Your task to perform on an android device: Open wifi settings Image 0: 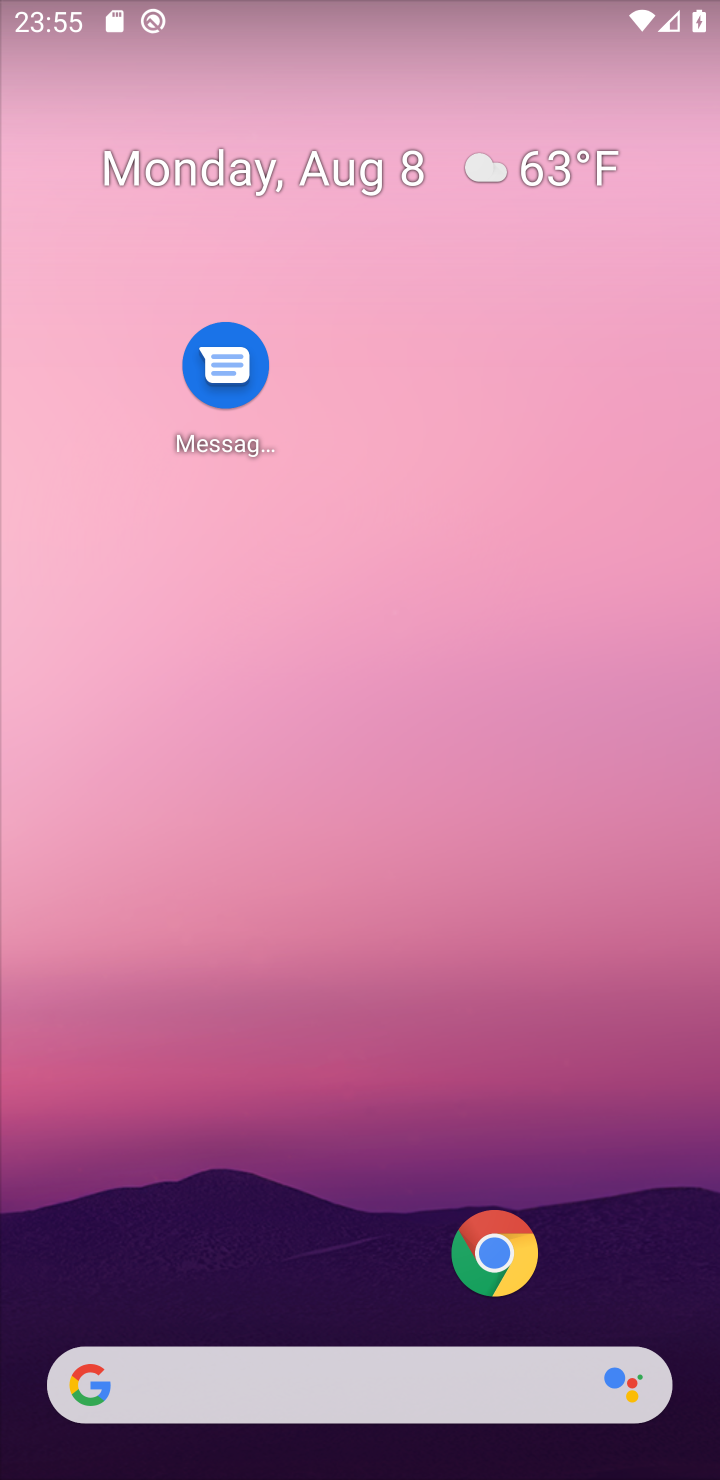
Step 0: drag from (322, 1249) to (386, 309)
Your task to perform on an android device: Open wifi settings Image 1: 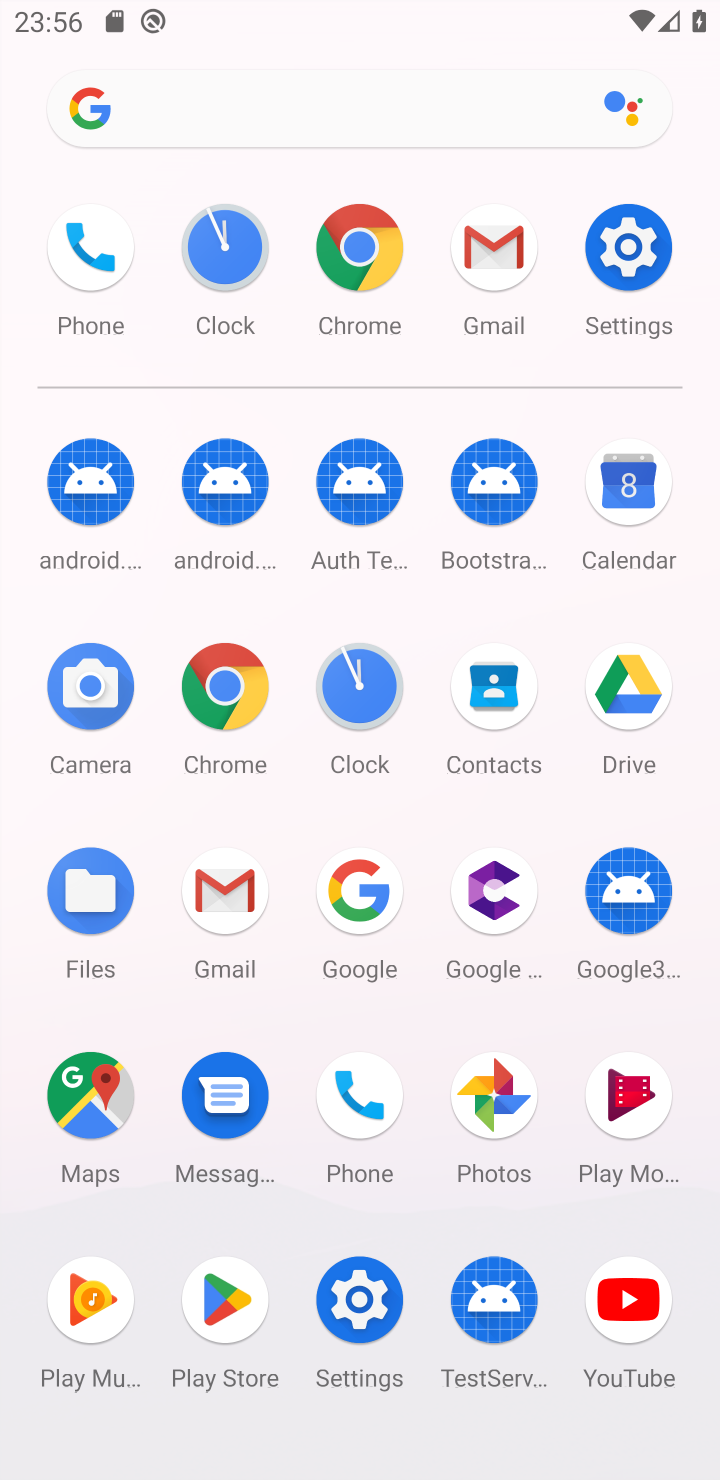
Step 1: click (632, 244)
Your task to perform on an android device: Open wifi settings Image 2: 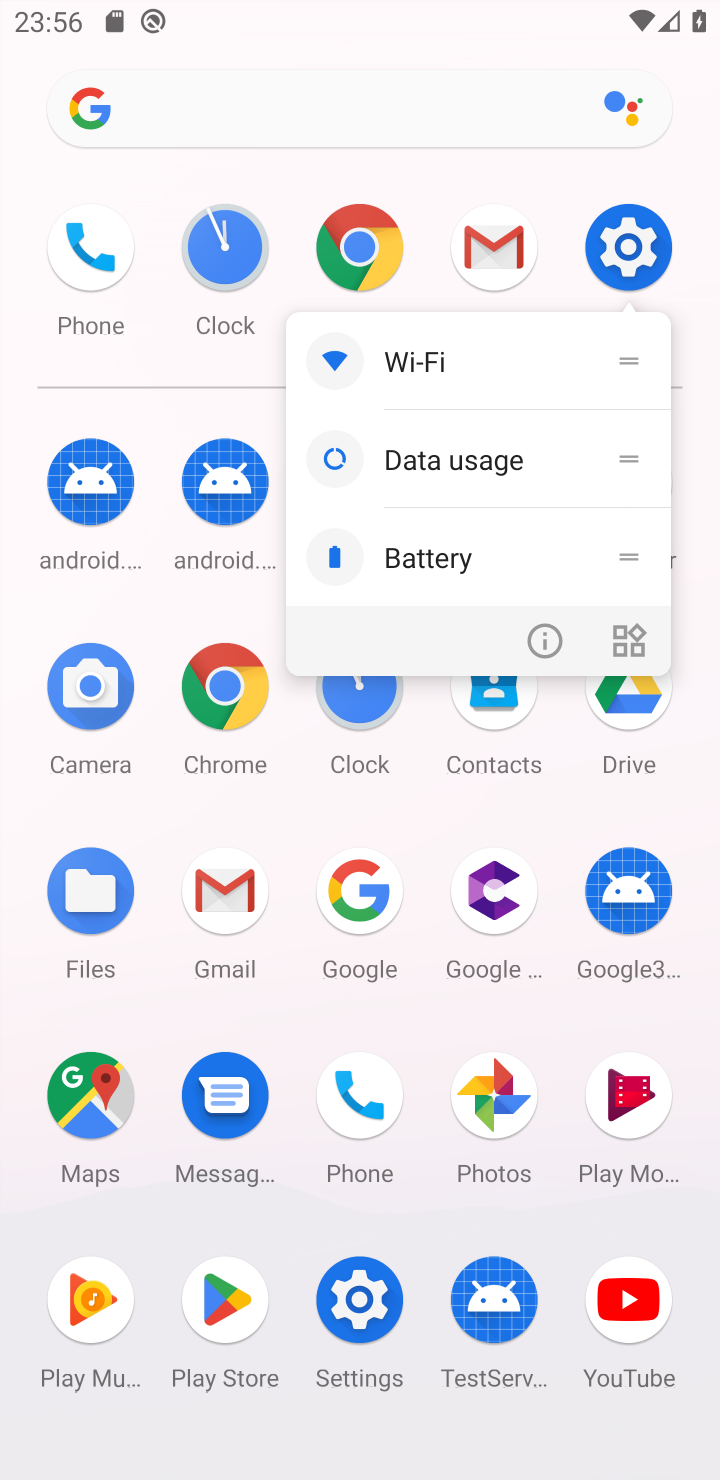
Step 2: click (651, 246)
Your task to perform on an android device: Open wifi settings Image 3: 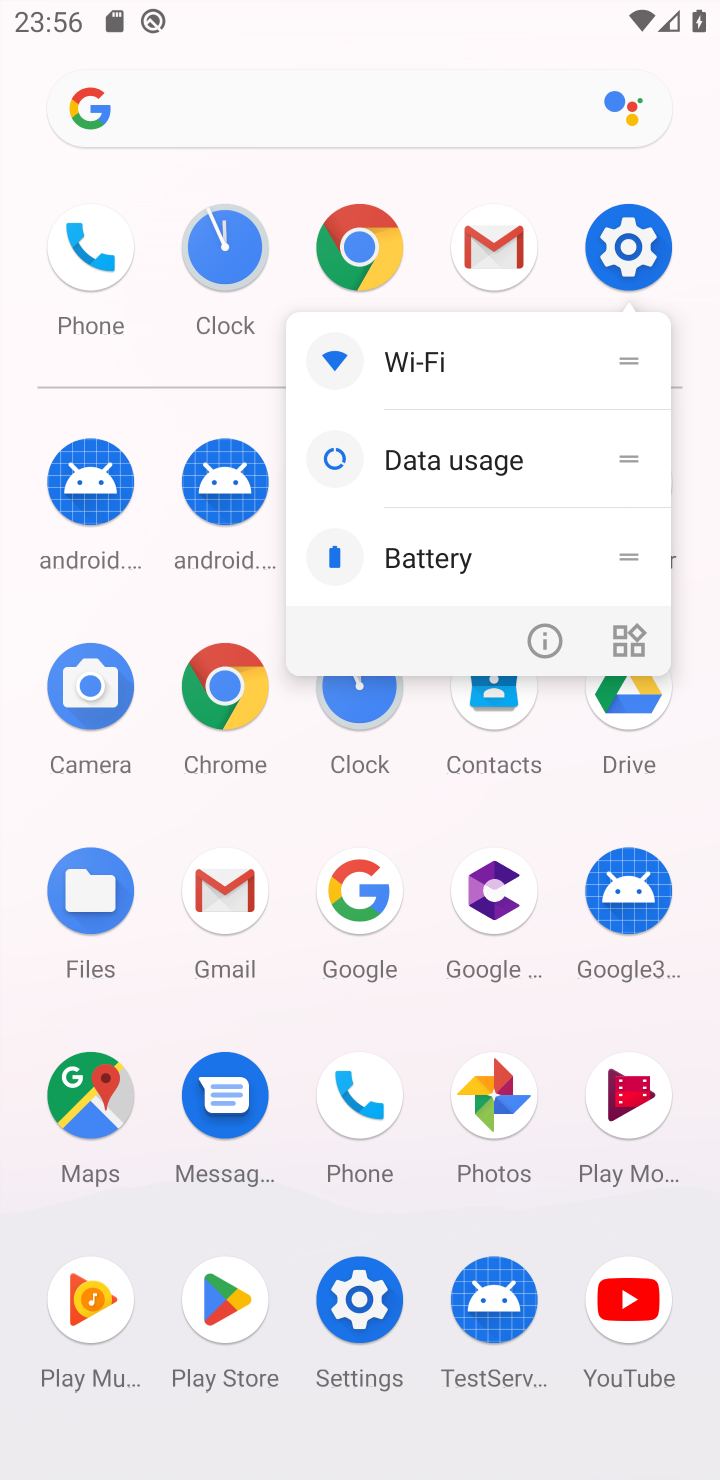
Step 3: click (467, 351)
Your task to perform on an android device: Open wifi settings Image 4: 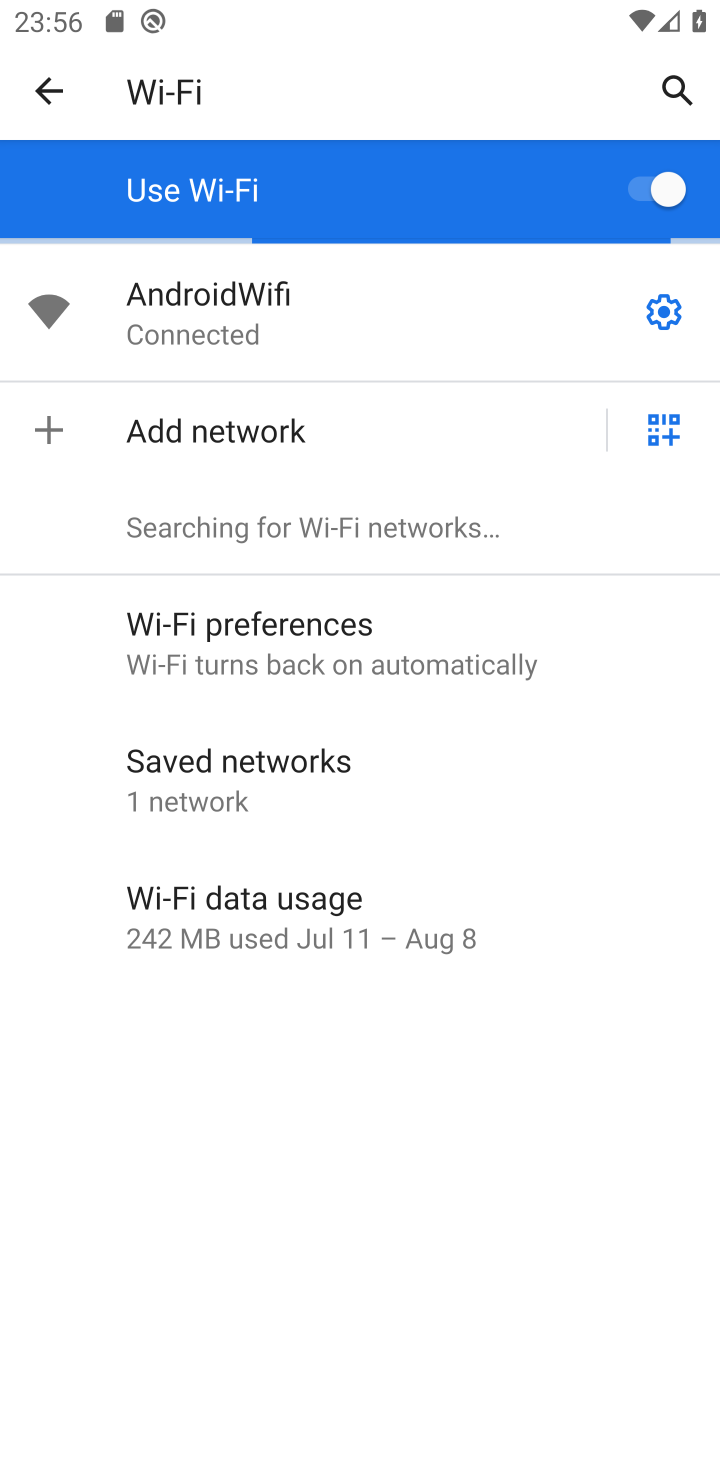
Step 4: task complete